Your task to perform on an android device: toggle wifi Image 0: 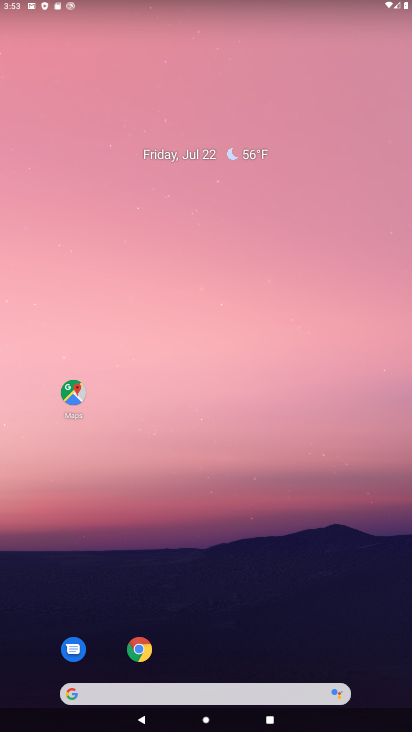
Step 0: drag from (244, 596) to (166, 65)
Your task to perform on an android device: toggle wifi Image 1: 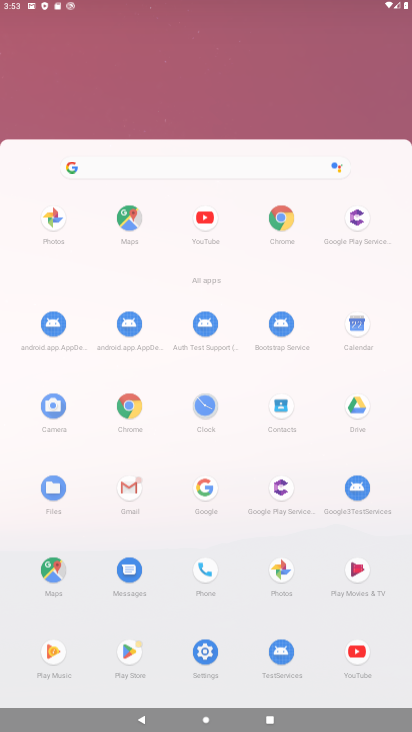
Step 1: drag from (161, 329) to (155, 149)
Your task to perform on an android device: toggle wifi Image 2: 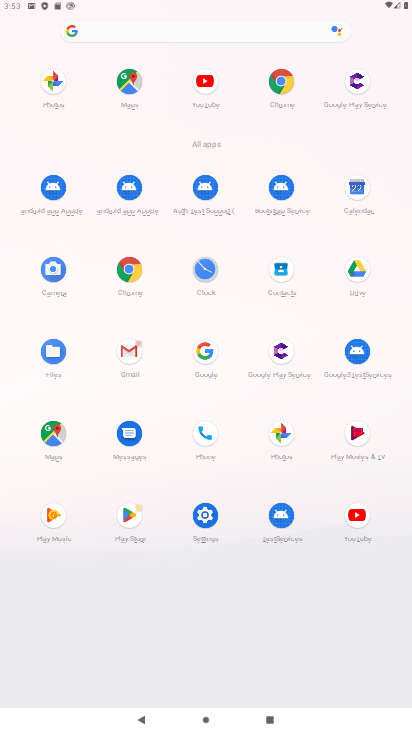
Step 2: drag from (200, 463) to (169, 138)
Your task to perform on an android device: toggle wifi Image 3: 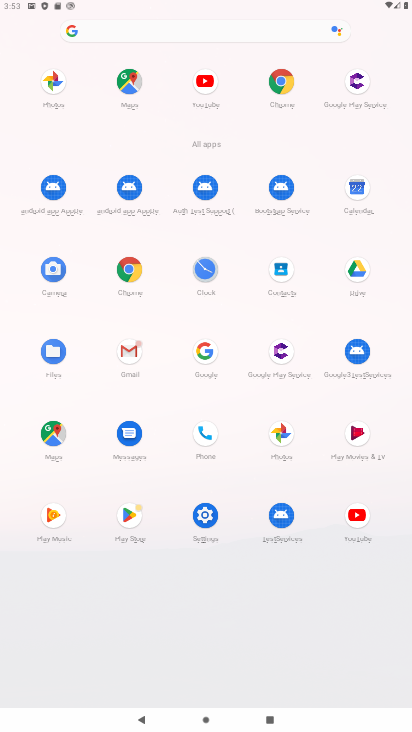
Step 3: click (205, 514)
Your task to perform on an android device: toggle wifi Image 4: 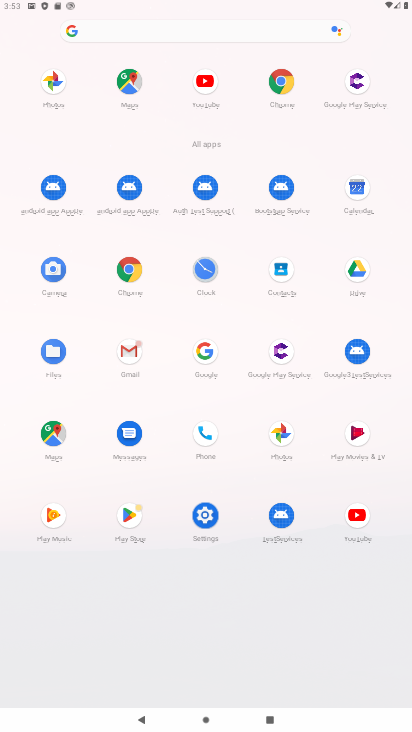
Step 4: click (204, 514)
Your task to perform on an android device: toggle wifi Image 5: 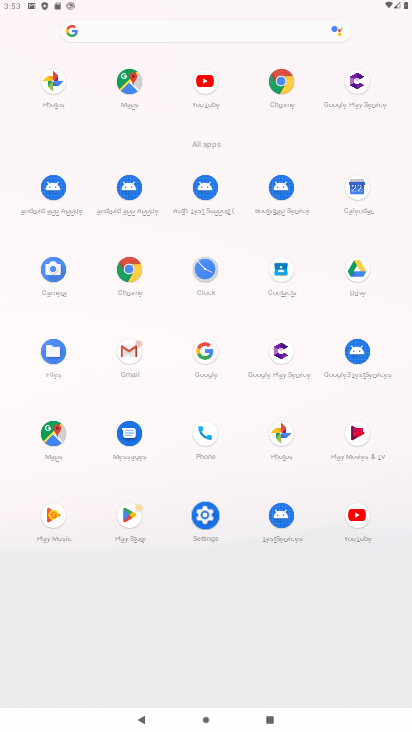
Step 5: click (204, 514)
Your task to perform on an android device: toggle wifi Image 6: 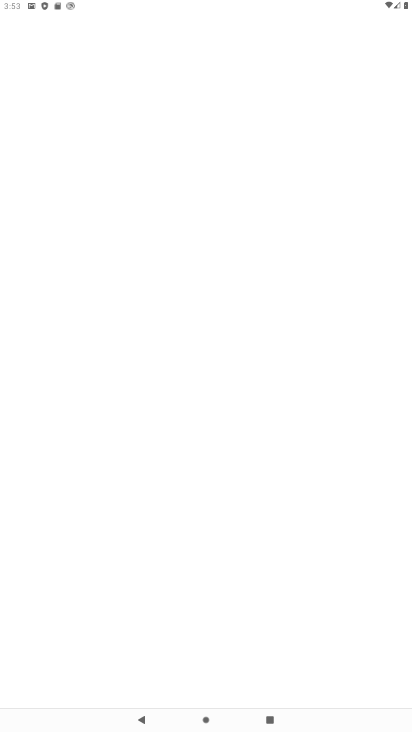
Step 6: click (203, 516)
Your task to perform on an android device: toggle wifi Image 7: 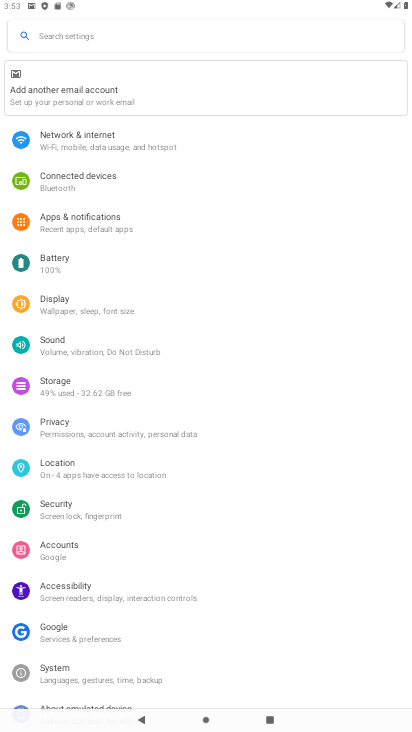
Step 7: click (78, 136)
Your task to perform on an android device: toggle wifi Image 8: 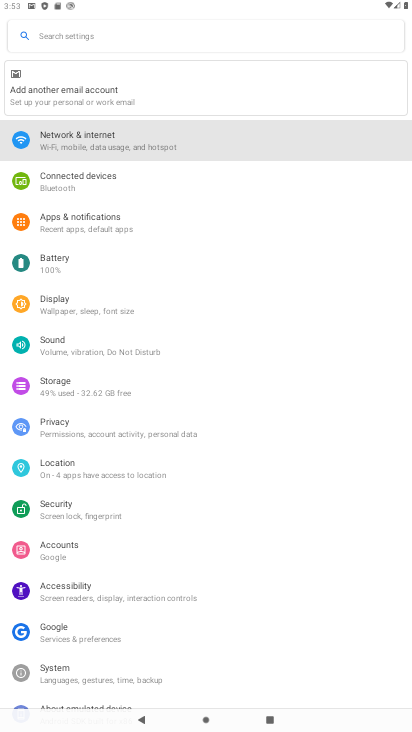
Step 8: click (76, 137)
Your task to perform on an android device: toggle wifi Image 9: 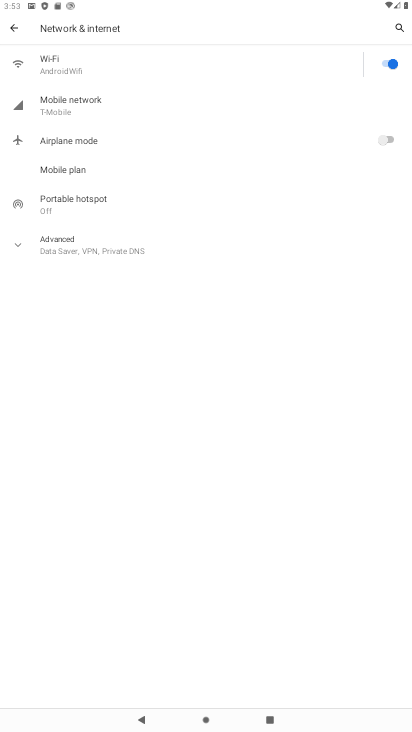
Step 9: click (393, 65)
Your task to perform on an android device: toggle wifi Image 10: 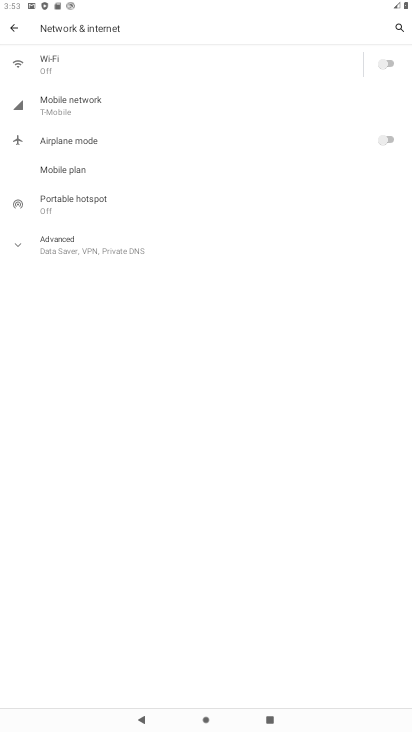
Step 10: task complete